Your task to perform on an android device: change the clock display to digital Image 0: 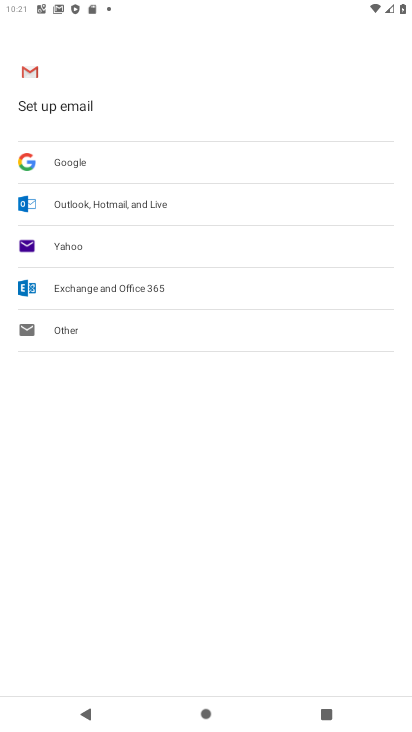
Step 0: press home button
Your task to perform on an android device: change the clock display to digital Image 1: 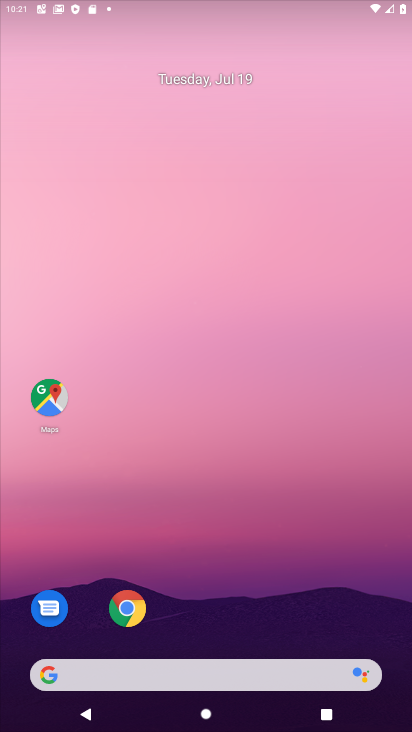
Step 1: drag from (279, 598) to (209, 132)
Your task to perform on an android device: change the clock display to digital Image 2: 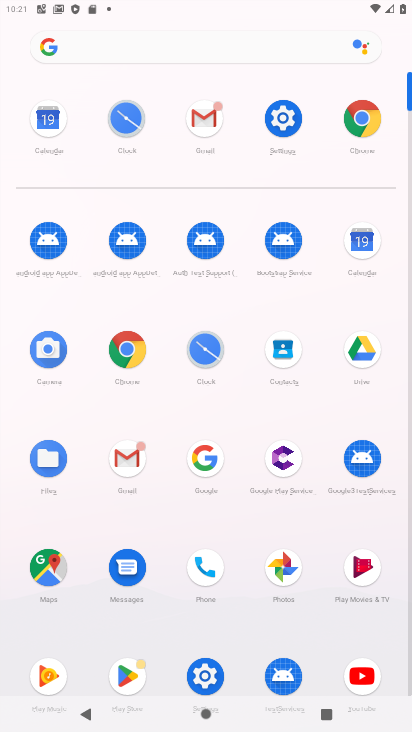
Step 2: click (208, 357)
Your task to perform on an android device: change the clock display to digital Image 3: 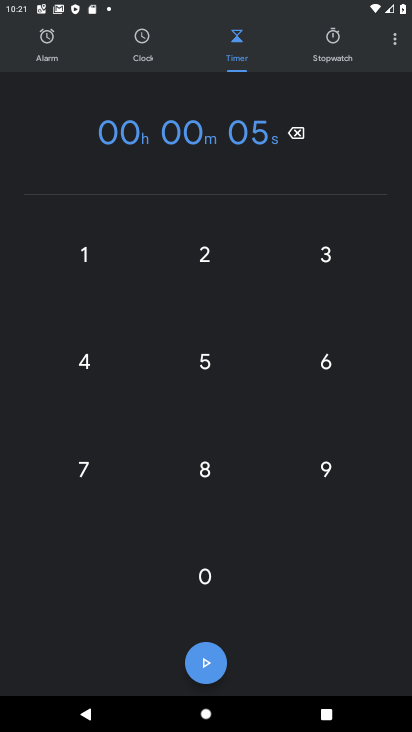
Step 3: click (394, 39)
Your task to perform on an android device: change the clock display to digital Image 4: 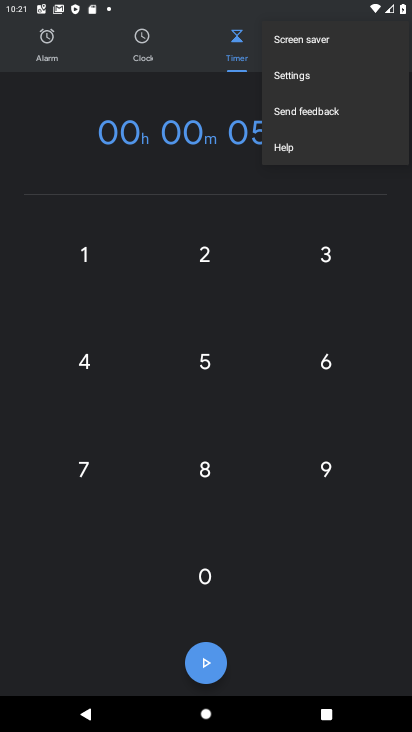
Step 4: click (306, 79)
Your task to perform on an android device: change the clock display to digital Image 5: 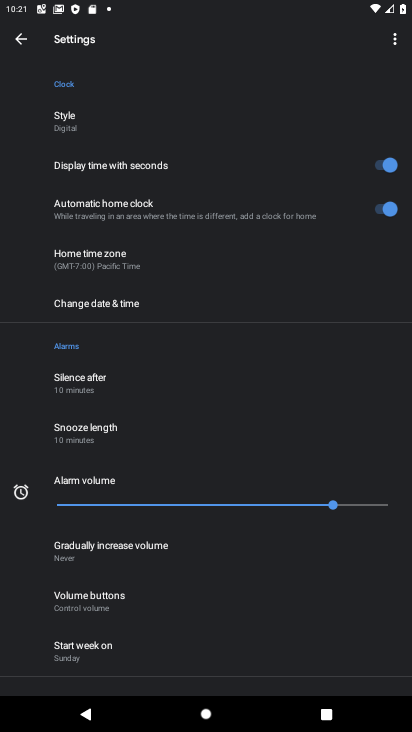
Step 5: task complete